Your task to perform on an android device: open app "Airtel Thanks" (install if not already installed) Image 0: 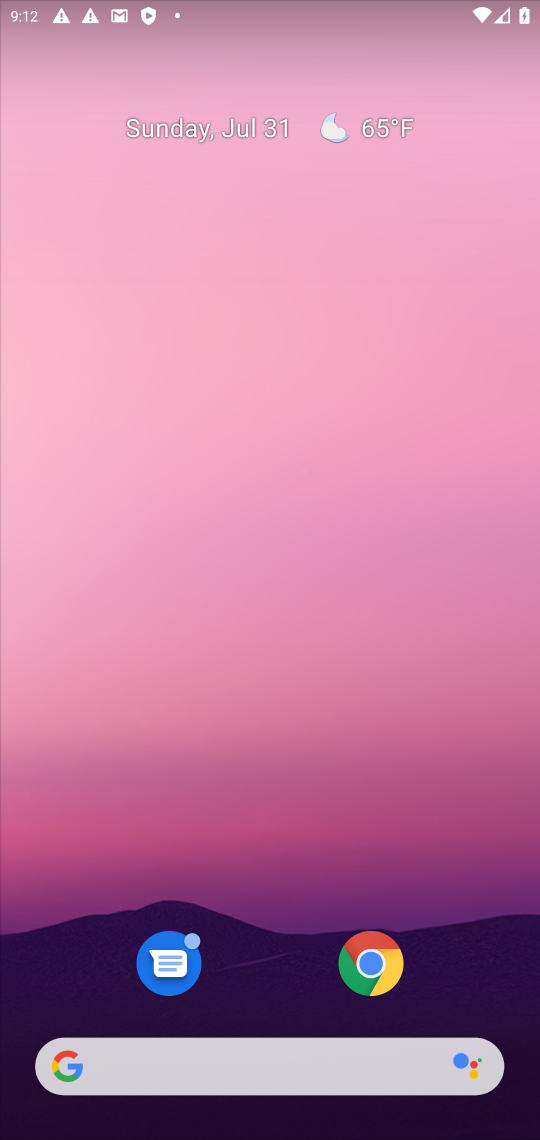
Step 0: drag from (250, 984) to (286, 62)
Your task to perform on an android device: open app "Airtel Thanks" (install if not already installed) Image 1: 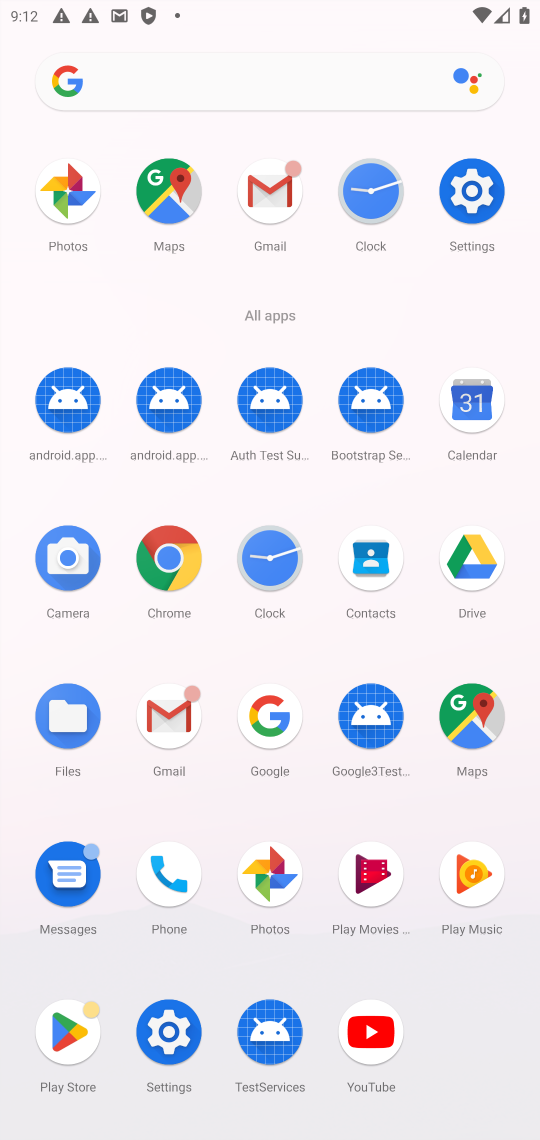
Step 1: click (72, 1016)
Your task to perform on an android device: open app "Airtel Thanks" (install if not already installed) Image 2: 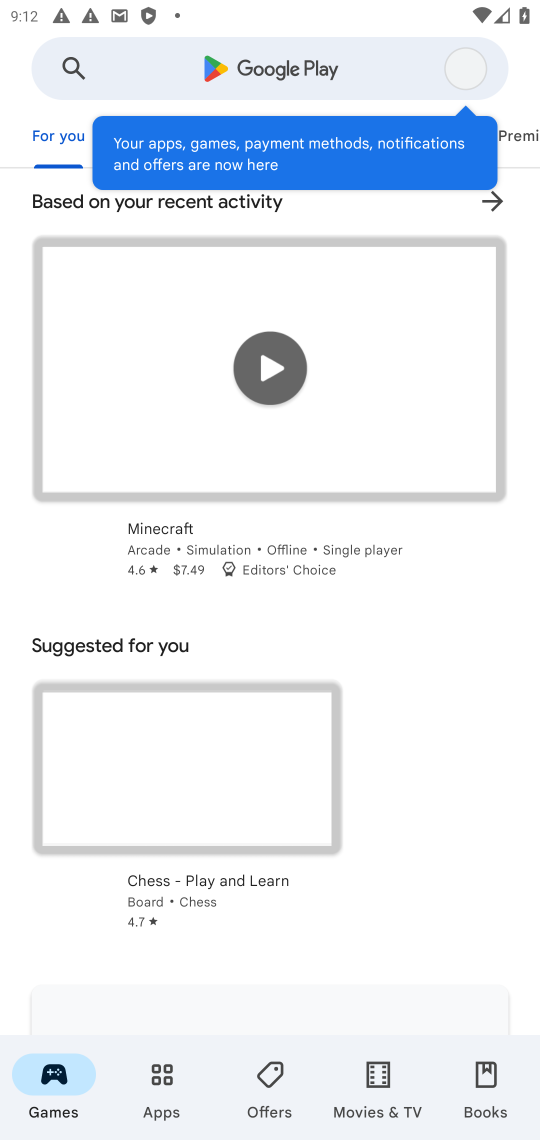
Step 2: click (276, 77)
Your task to perform on an android device: open app "Airtel Thanks" (install if not already installed) Image 3: 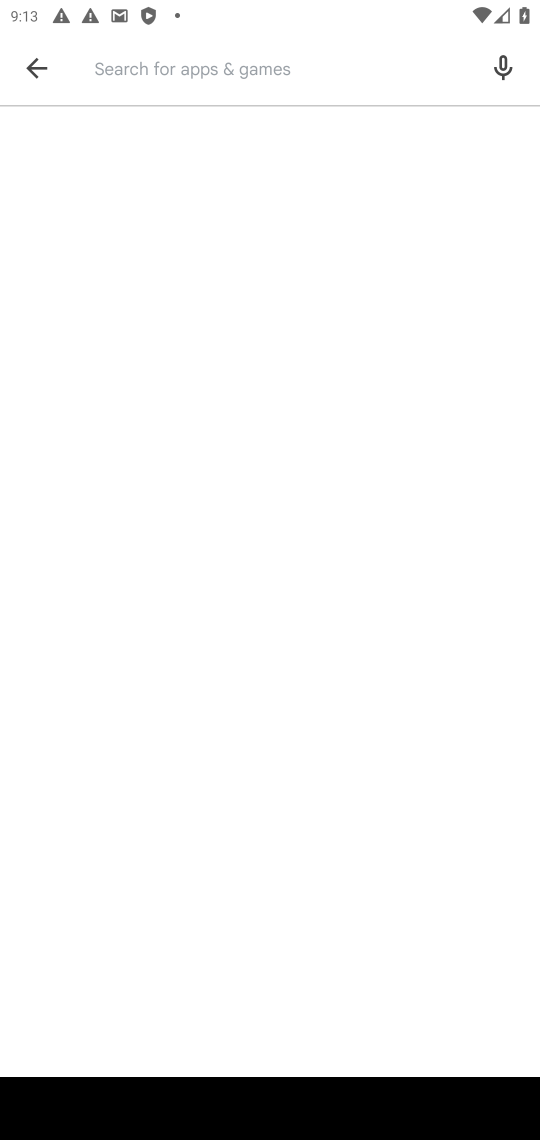
Step 3: type "airtel thanks"
Your task to perform on an android device: open app "Airtel Thanks" (install if not already installed) Image 4: 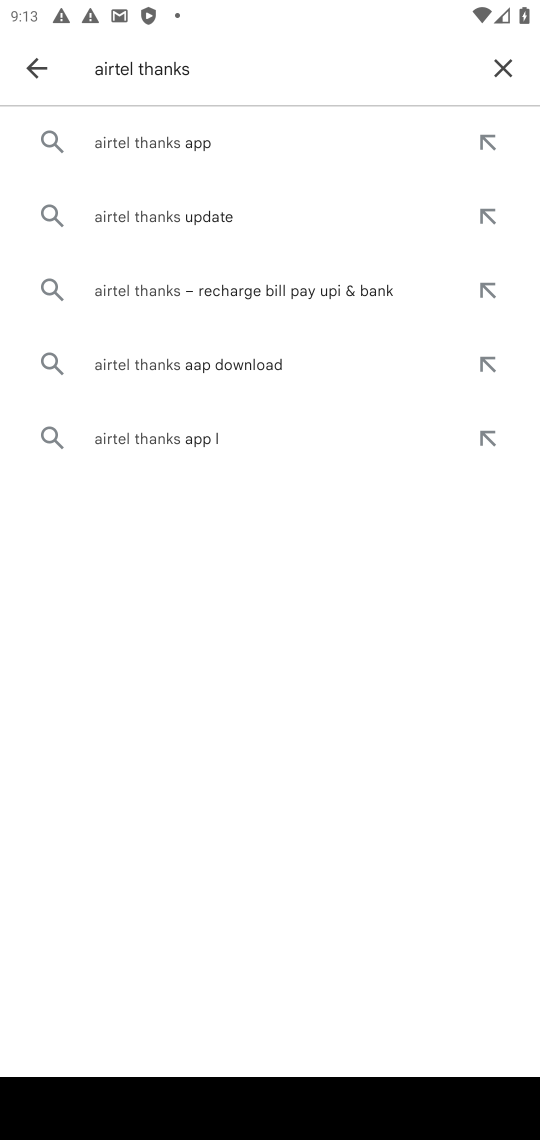
Step 4: click (201, 146)
Your task to perform on an android device: open app "Airtel Thanks" (install if not already installed) Image 5: 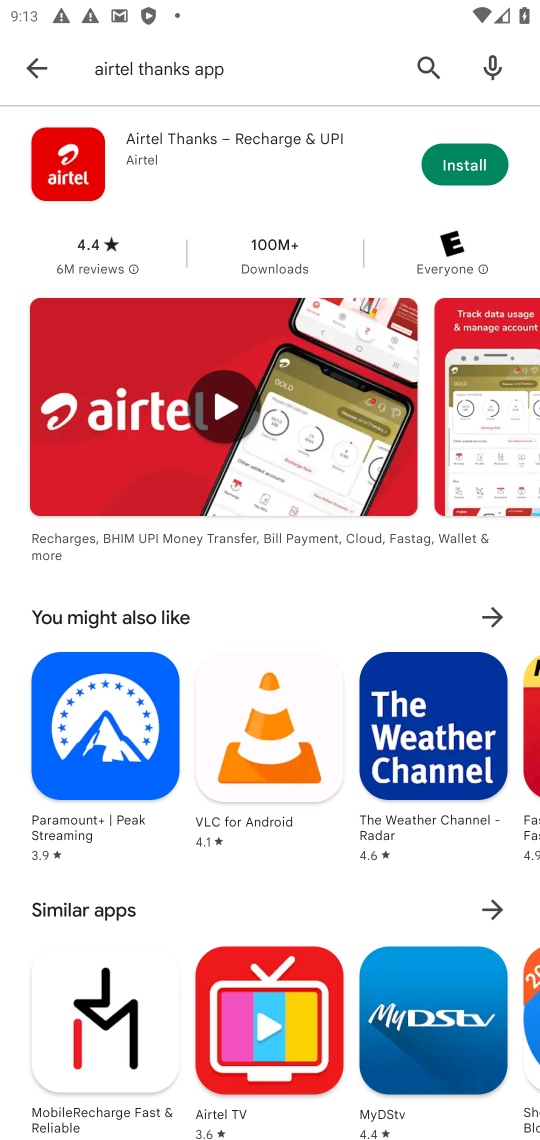
Step 5: click (208, 142)
Your task to perform on an android device: open app "Airtel Thanks" (install if not already installed) Image 6: 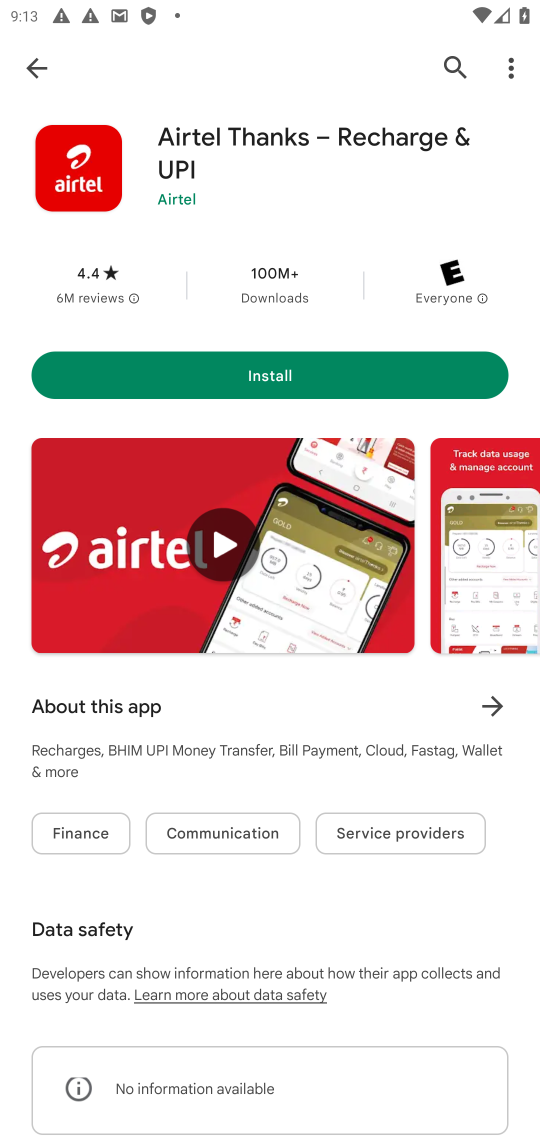
Step 6: click (129, 351)
Your task to perform on an android device: open app "Airtel Thanks" (install if not already installed) Image 7: 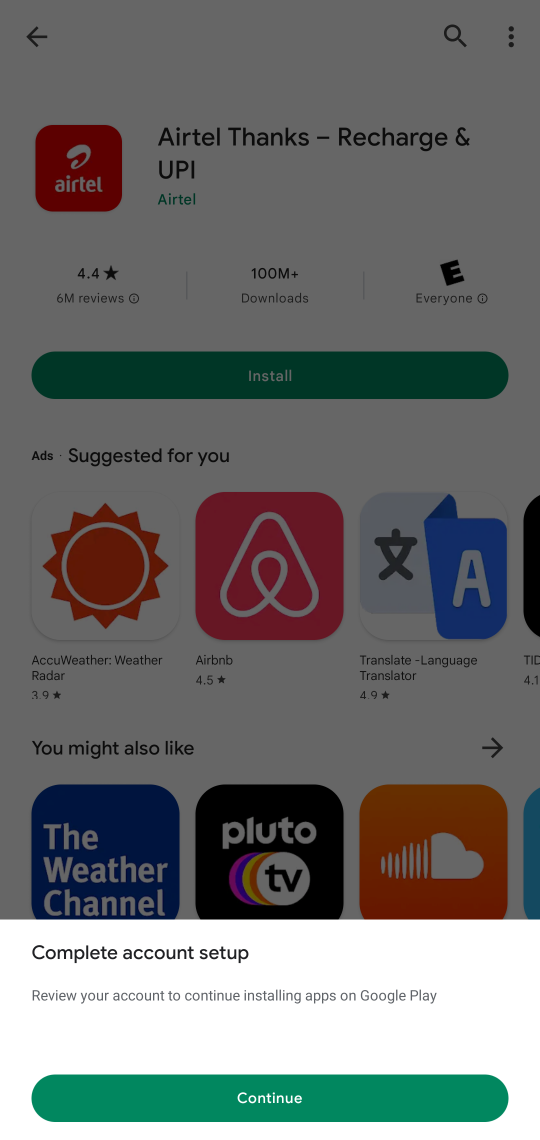
Step 7: click (202, 1096)
Your task to perform on an android device: open app "Airtel Thanks" (install if not already installed) Image 8: 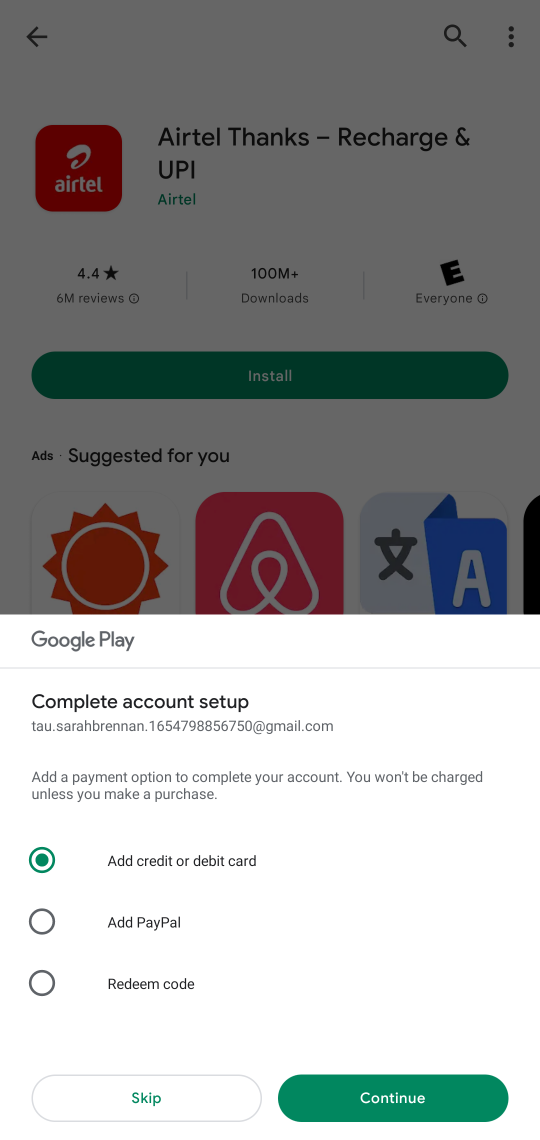
Step 8: click (116, 1101)
Your task to perform on an android device: open app "Airtel Thanks" (install if not already installed) Image 9: 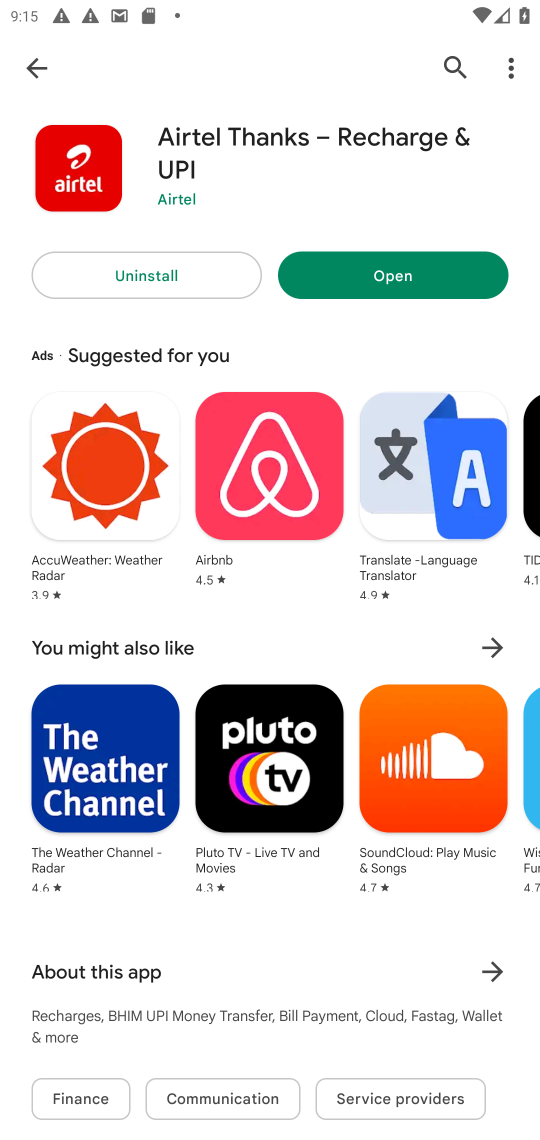
Step 9: click (431, 278)
Your task to perform on an android device: open app "Airtel Thanks" (install if not already installed) Image 10: 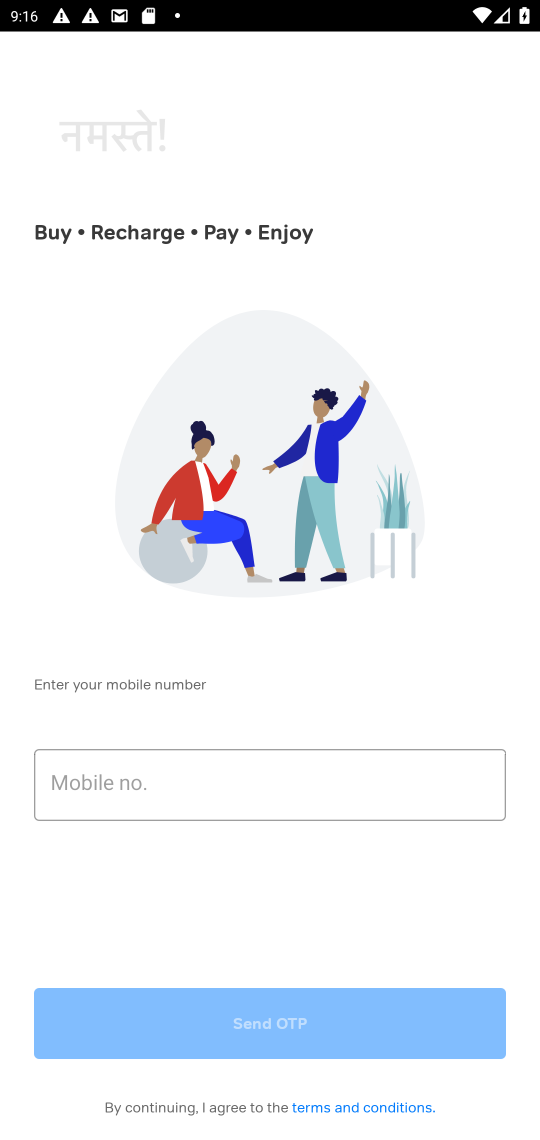
Step 10: task complete